Your task to perform on an android device: Turn off the flashlight Image 0: 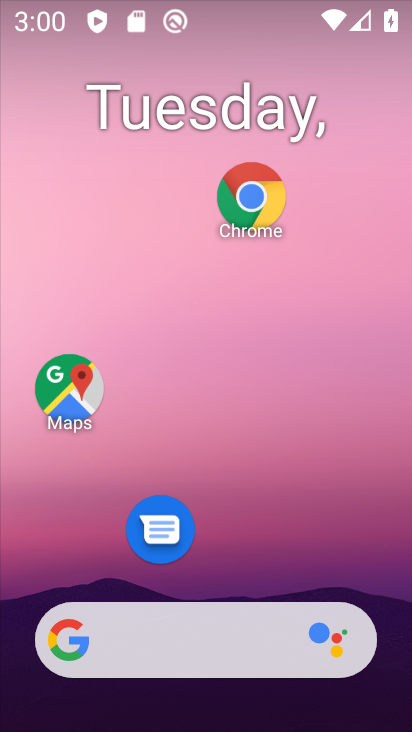
Step 0: drag from (203, 5) to (221, 458)
Your task to perform on an android device: Turn off the flashlight Image 1: 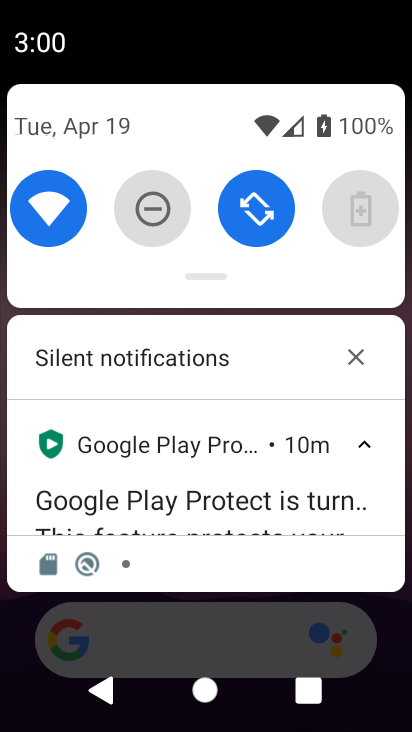
Step 1: drag from (297, 244) to (303, 473)
Your task to perform on an android device: Turn off the flashlight Image 2: 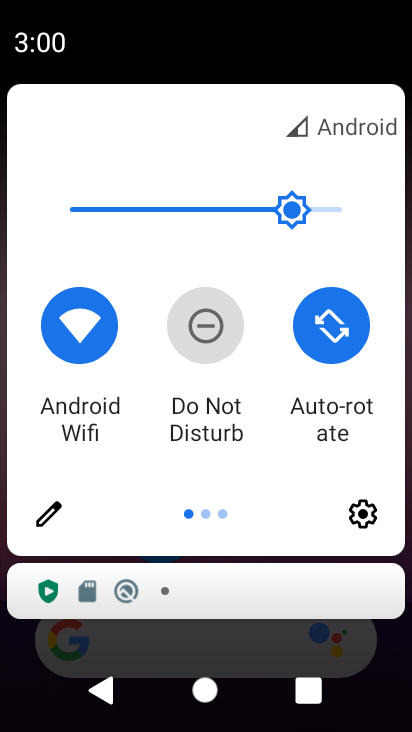
Step 2: drag from (348, 352) to (21, 435)
Your task to perform on an android device: Turn off the flashlight Image 3: 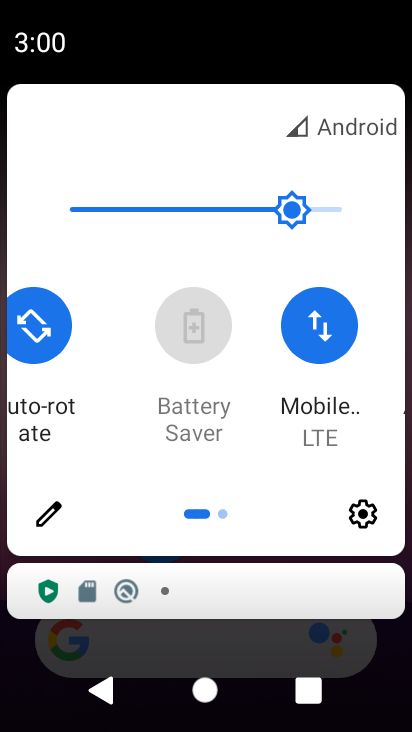
Step 3: drag from (356, 417) to (4, 496)
Your task to perform on an android device: Turn off the flashlight Image 4: 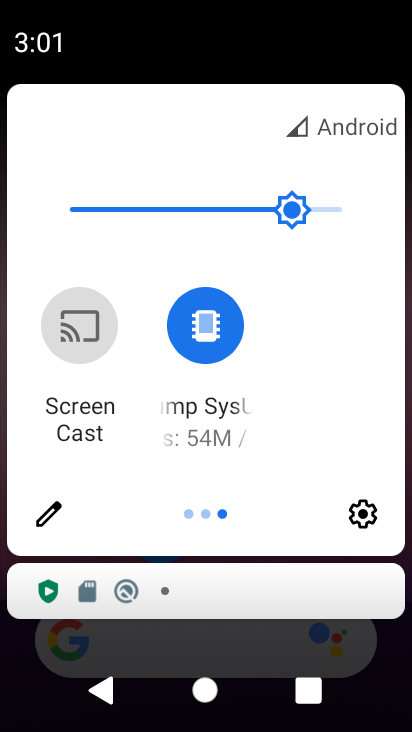
Step 4: drag from (304, 431) to (7, 515)
Your task to perform on an android device: Turn off the flashlight Image 5: 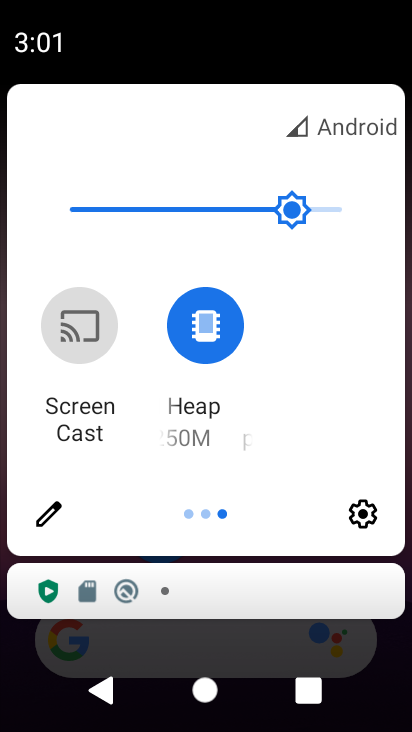
Step 5: click (47, 515)
Your task to perform on an android device: Turn off the flashlight Image 6: 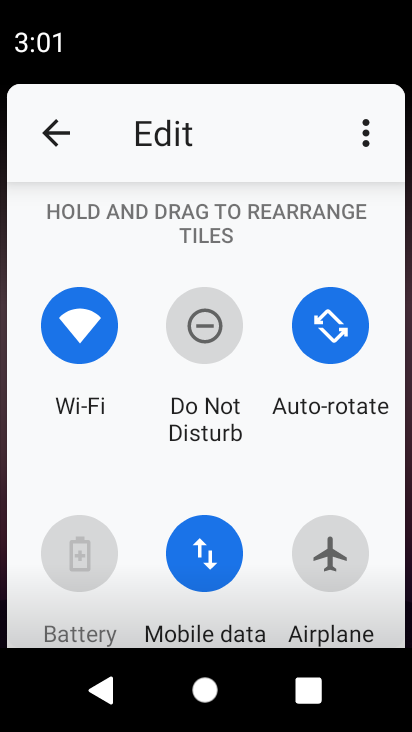
Step 6: task complete